Your task to perform on an android device: Open settings Image 0: 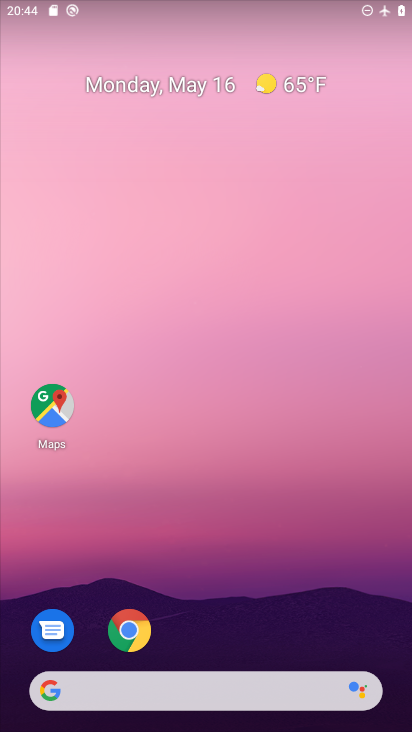
Step 0: drag from (186, 621) to (212, 130)
Your task to perform on an android device: Open settings Image 1: 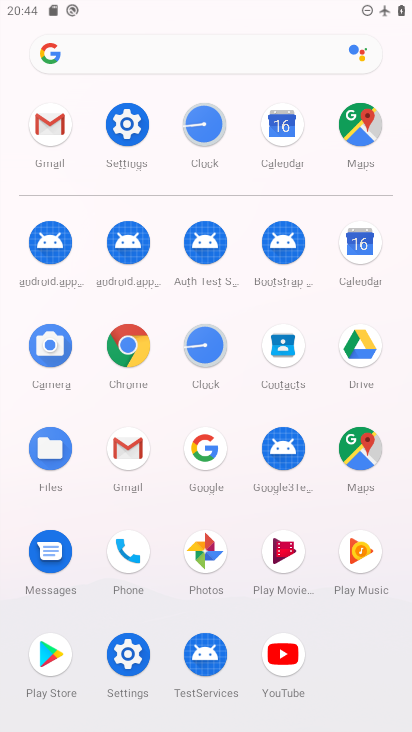
Step 1: click (108, 128)
Your task to perform on an android device: Open settings Image 2: 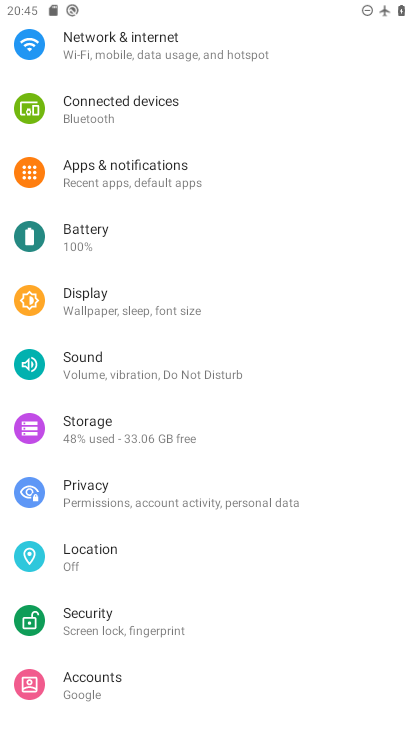
Step 2: task complete